Your task to perform on an android device: Open the stopwatch Image 0: 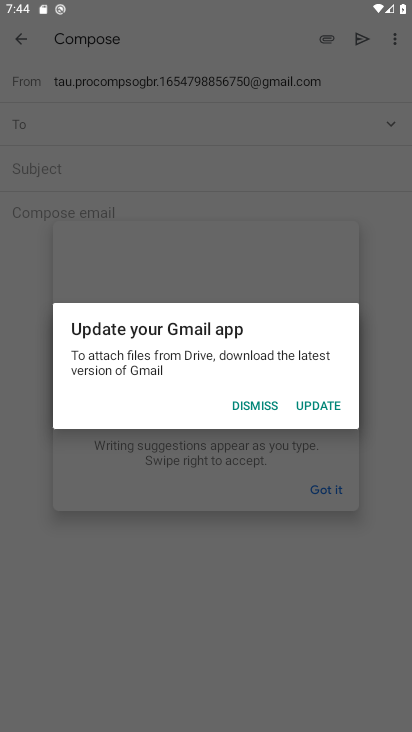
Step 0: click (304, 398)
Your task to perform on an android device: Open the stopwatch Image 1: 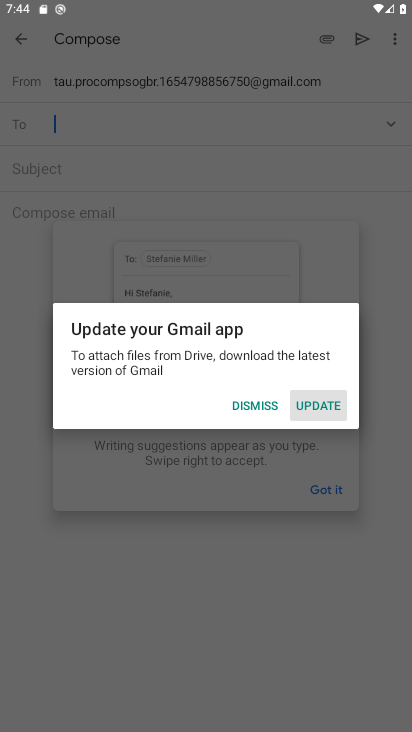
Step 1: click (306, 404)
Your task to perform on an android device: Open the stopwatch Image 2: 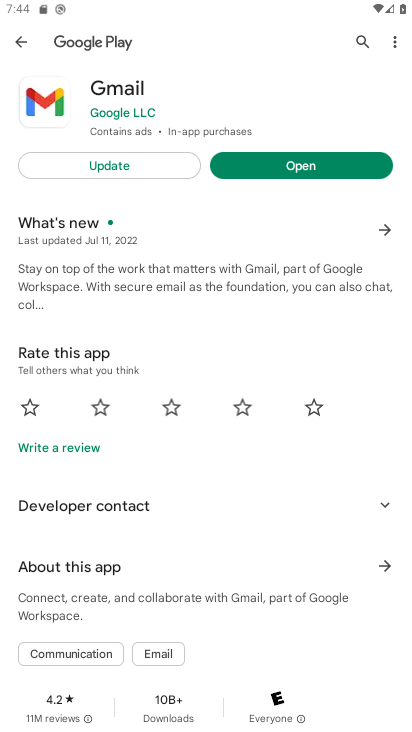
Step 2: click (119, 156)
Your task to perform on an android device: Open the stopwatch Image 3: 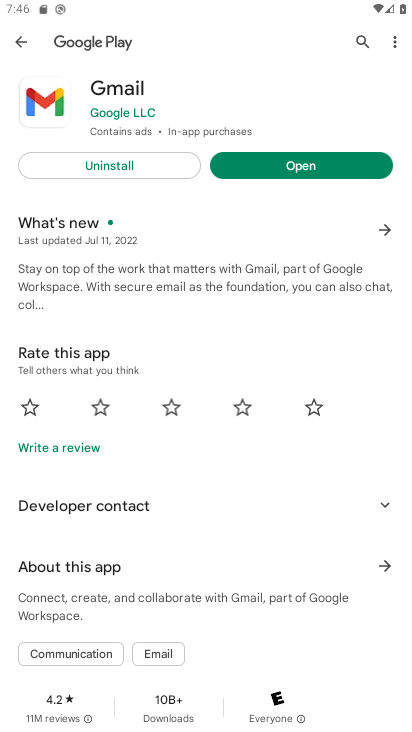
Step 3: click (240, 155)
Your task to perform on an android device: Open the stopwatch Image 4: 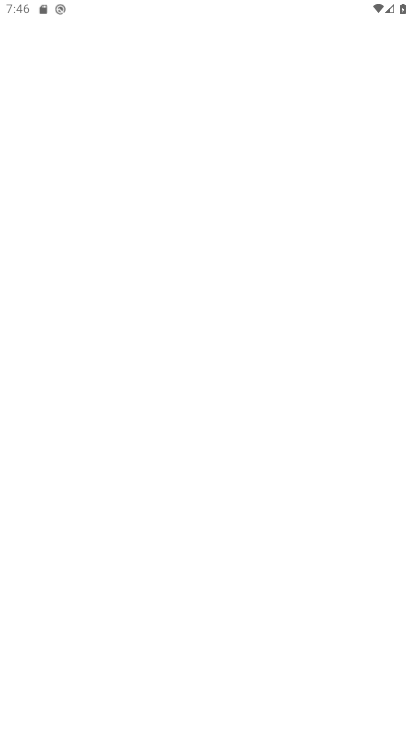
Step 4: press home button
Your task to perform on an android device: Open the stopwatch Image 5: 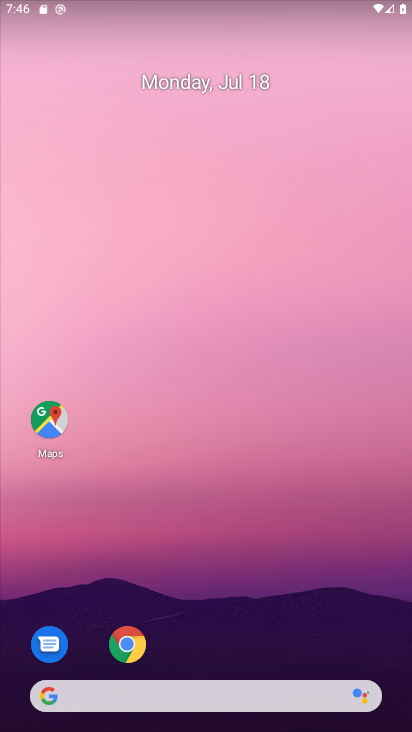
Step 5: drag from (268, 644) to (270, 396)
Your task to perform on an android device: Open the stopwatch Image 6: 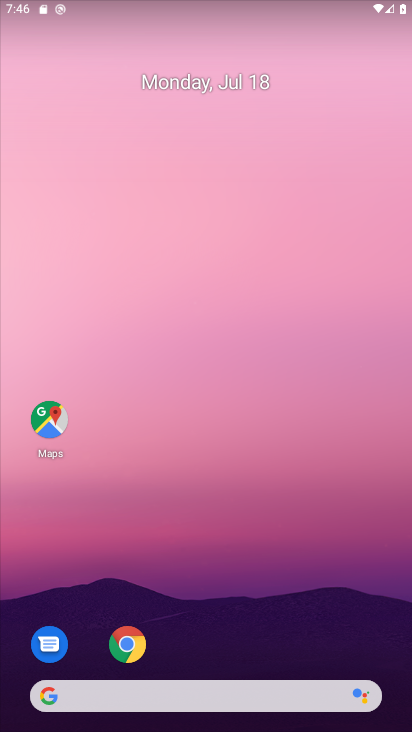
Step 6: drag from (216, 630) to (206, 215)
Your task to perform on an android device: Open the stopwatch Image 7: 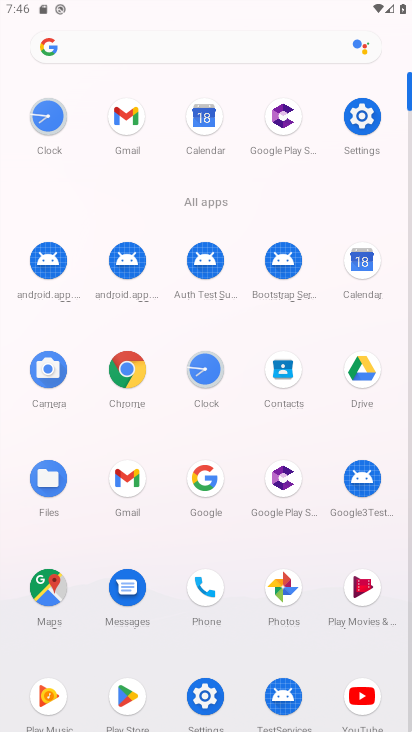
Step 7: click (32, 115)
Your task to perform on an android device: Open the stopwatch Image 8: 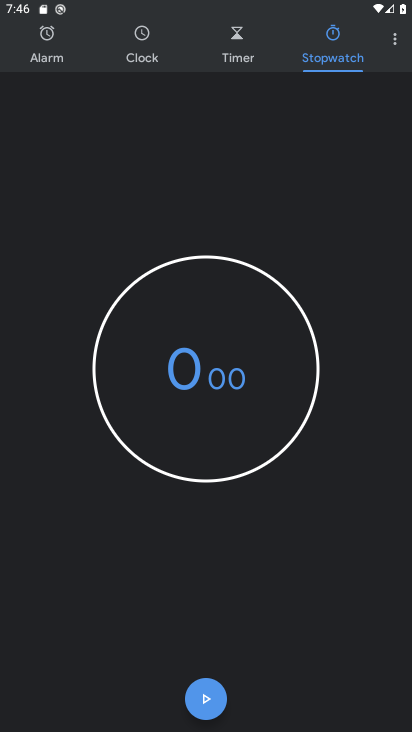
Step 8: task complete